Your task to perform on an android device: Search for Italian restaurants on Maps Image 0: 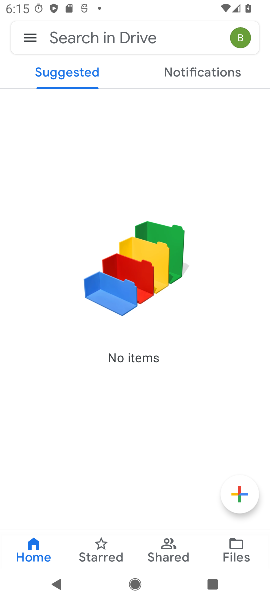
Step 0: press home button
Your task to perform on an android device: Search for Italian restaurants on Maps Image 1: 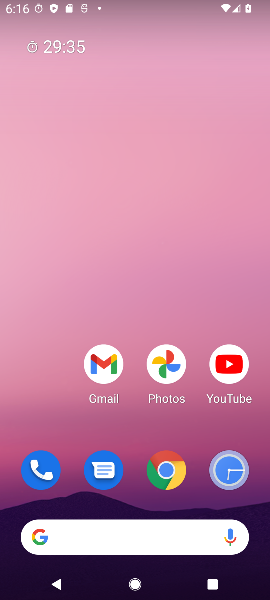
Step 1: drag from (165, 491) to (210, 10)
Your task to perform on an android device: Search for Italian restaurants on Maps Image 2: 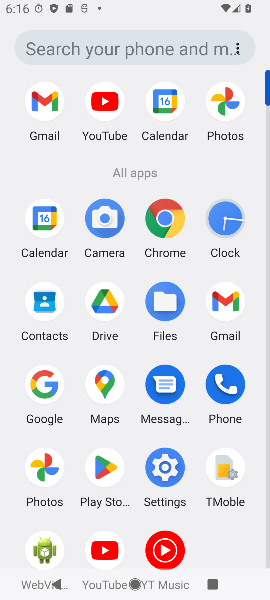
Step 2: click (177, 209)
Your task to perform on an android device: Search for Italian restaurants on Maps Image 3: 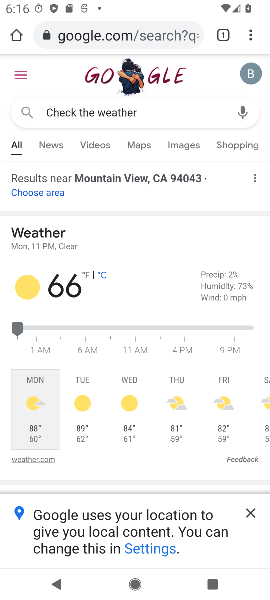
Step 3: drag from (251, 31) to (155, 492)
Your task to perform on an android device: Search for Italian restaurants on Maps Image 4: 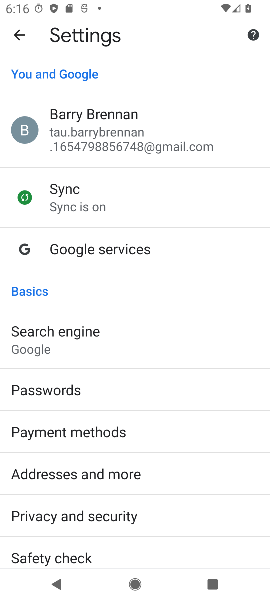
Step 4: press home button
Your task to perform on an android device: Search for Italian restaurants on Maps Image 5: 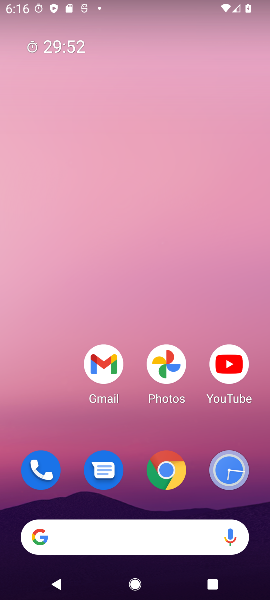
Step 5: drag from (218, 494) to (267, 23)
Your task to perform on an android device: Search for Italian restaurants on Maps Image 6: 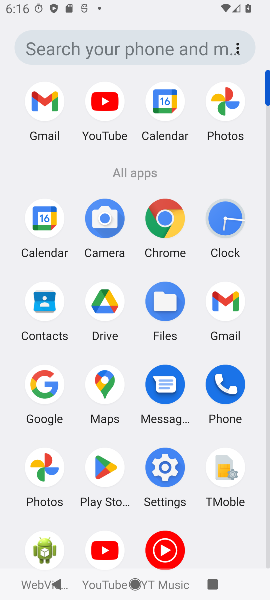
Step 6: click (97, 389)
Your task to perform on an android device: Search for Italian restaurants on Maps Image 7: 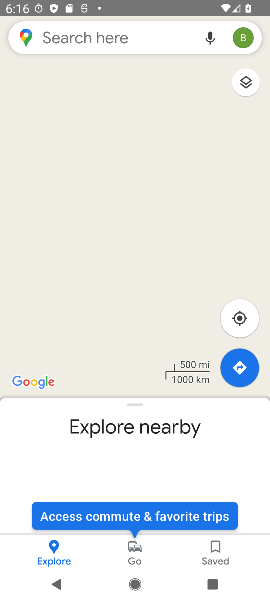
Step 7: click (100, 41)
Your task to perform on an android device: Search for Italian restaurants on Maps Image 8: 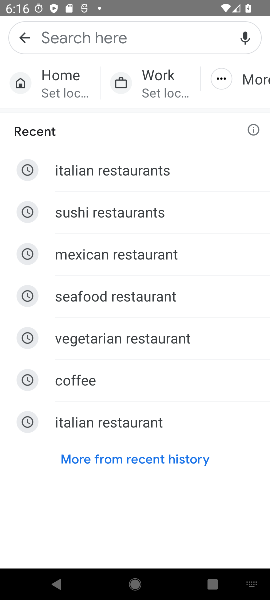
Step 8: type " Italian restaurants"
Your task to perform on an android device: Search for Italian restaurants on Maps Image 9: 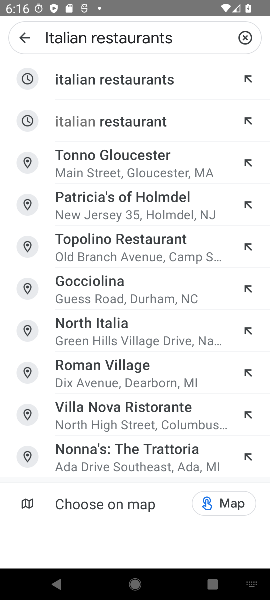
Step 9: click (117, 83)
Your task to perform on an android device: Search for Italian restaurants on Maps Image 10: 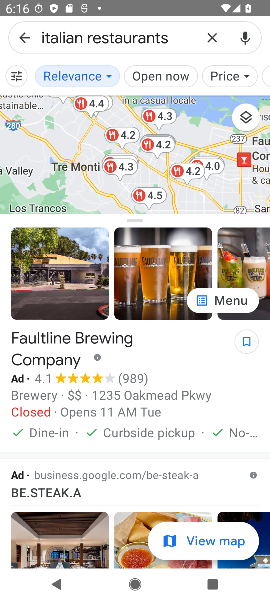
Step 10: task complete